Your task to perform on an android device: Play the last video I watched on Youtube Image 0: 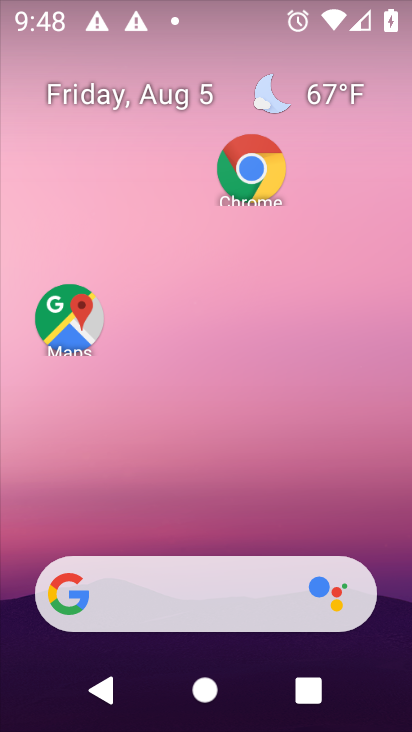
Step 0: drag from (198, 514) to (153, 132)
Your task to perform on an android device: Play the last video I watched on Youtube Image 1: 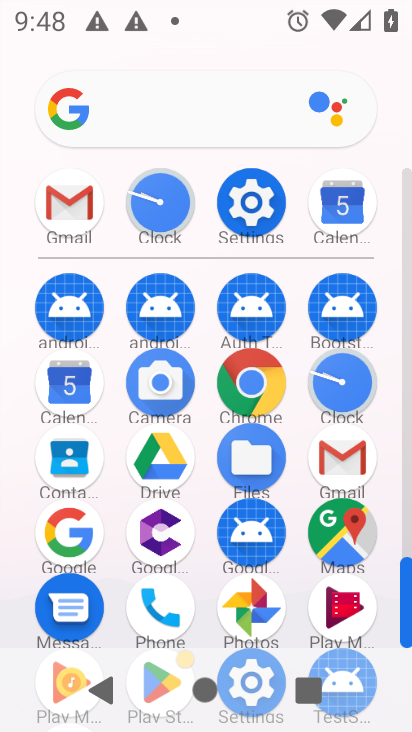
Step 1: drag from (207, 555) to (203, 164)
Your task to perform on an android device: Play the last video I watched on Youtube Image 2: 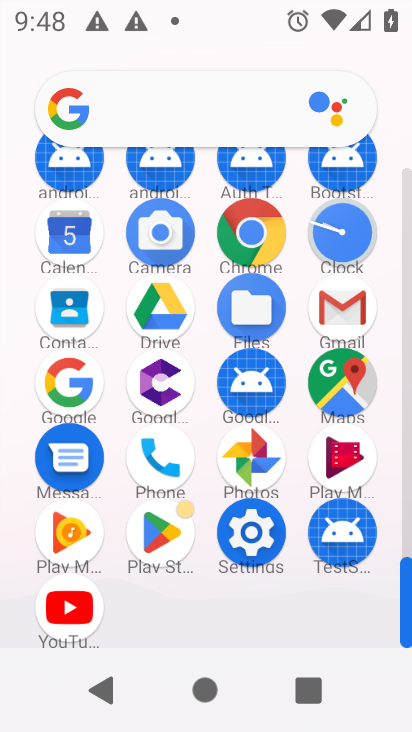
Step 2: click (60, 604)
Your task to perform on an android device: Play the last video I watched on Youtube Image 3: 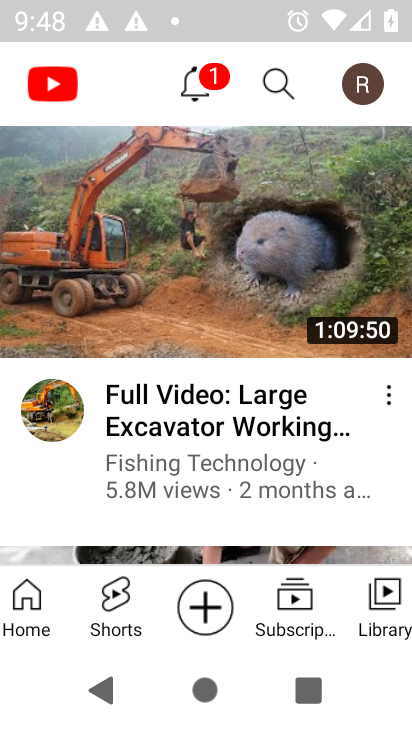
Step 3: click (402, 600)
Your task to perform on an android device: Play the last video I watched on Youtube Image 4: 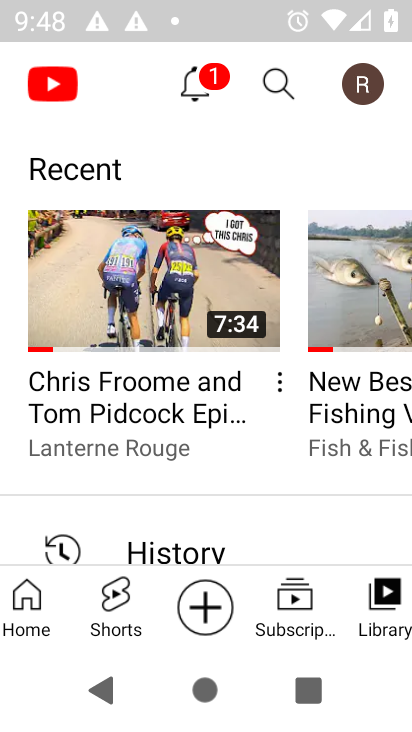
Step 4: drag from (190, 484) to (195, 135)
Your task to perform on an android device: Play the last video I watched on Youtube Image 5: 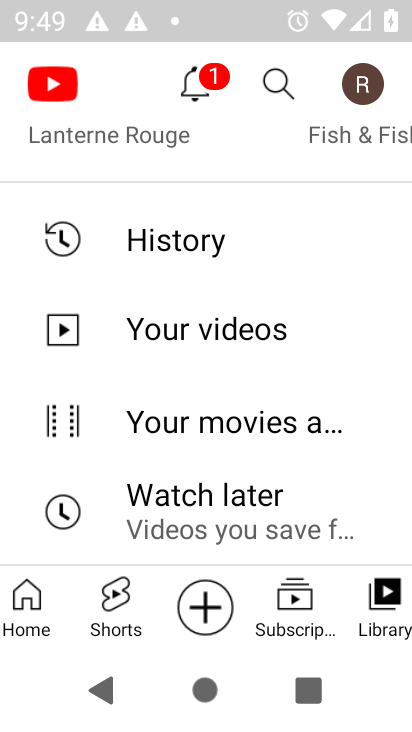
Step 5: drag from (197, 207) to (222, 408)
Your task to perform on an android device: Play the last video I watched on Youtube Image 6: 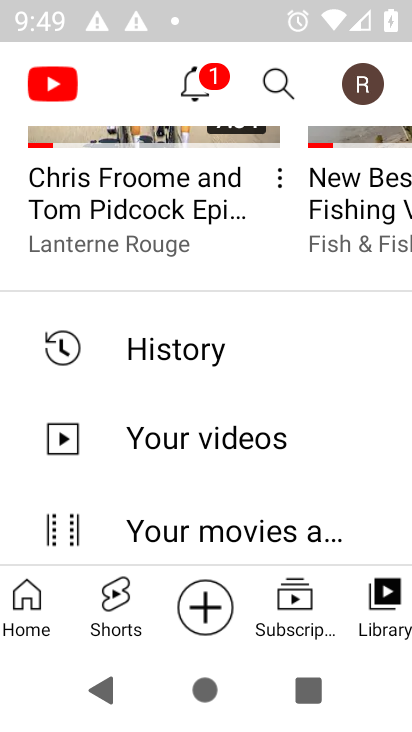
Step 6: drag from (148, 301) to (178, 506)
Your task to perform on an android device: Play the last video I watched on Youtube Image 7: 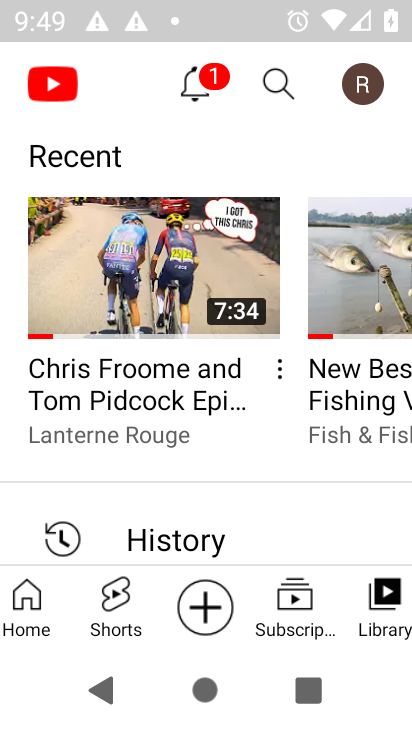
Step 7: click (139, 300)
Your task to perform on an android device: Play the last video I watched on Youtube Image 8: 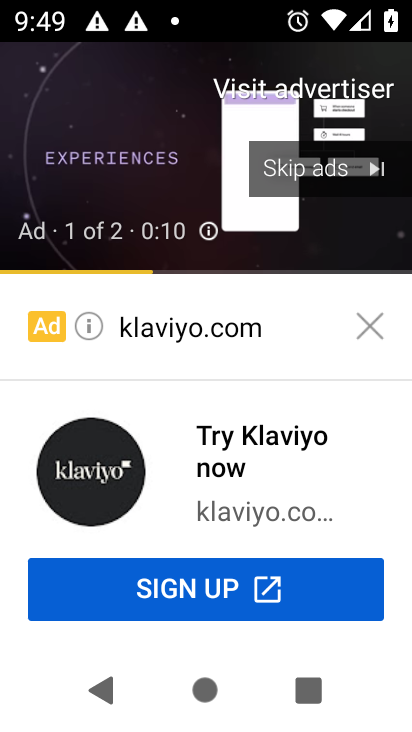
Step 8: click (362, 325)
Your task to perform on an android device: Play the last video I watched on Youtube Image 9: 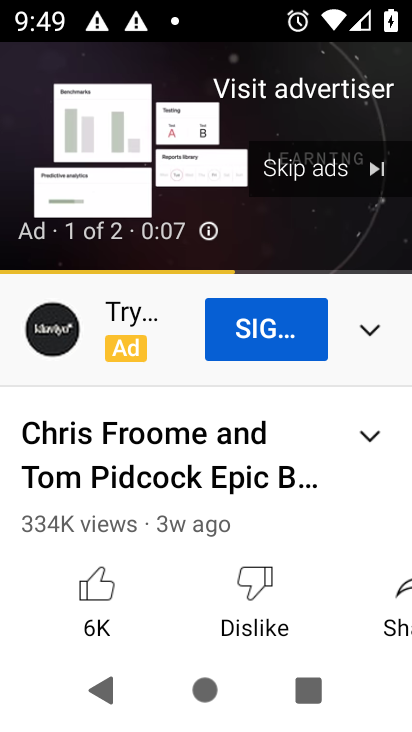
Step 9: click (301, 165)
Your task to perform on an android device: Play the last video I watched on Youtube Image 10: 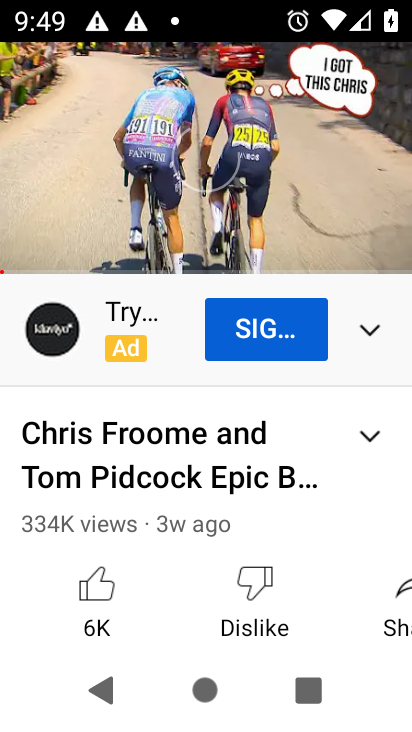
Step 10: click (198, 140)
Your task to perform on an android device: Play the last video I watched on Youtube Image 11: 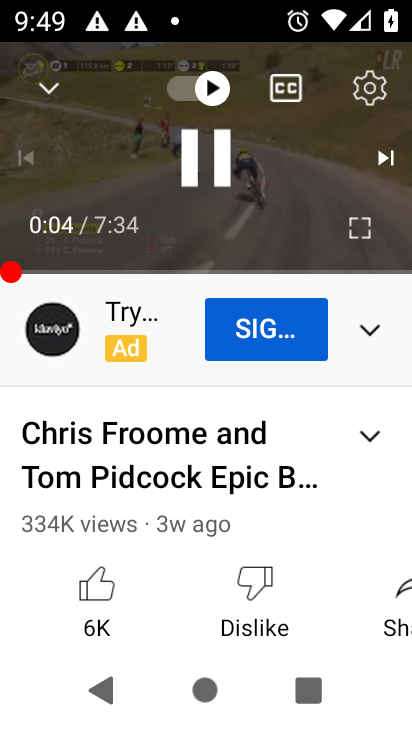
Step 11: click (207, 149)
Your task to perform on an android device: Play the last video I watched on Youtube Image 12: 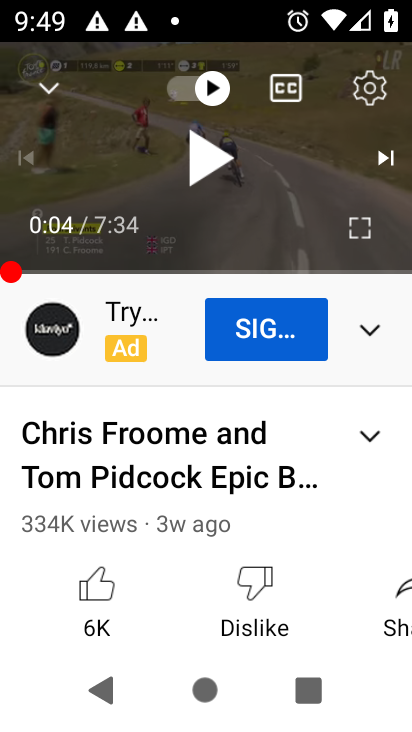
Step 12: task complete